Your task to perform on an android device: remove spam from my inbox in the gmail app Image 0: 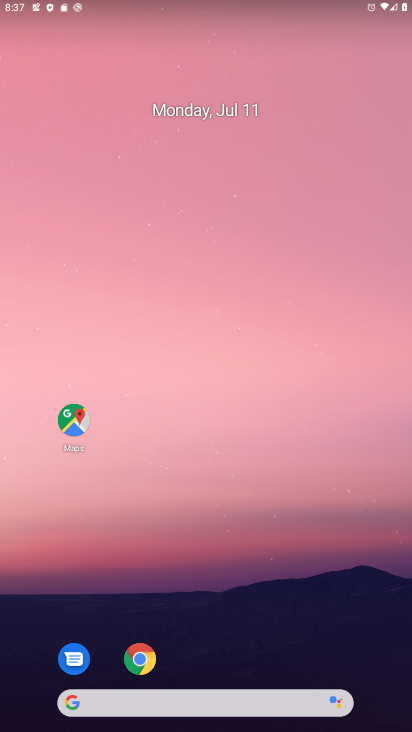
Step 0: drag from (278, 622) to (241, 240)
Your task to perform on an android device: remove spam from my inbox in the gmail app Image 1: 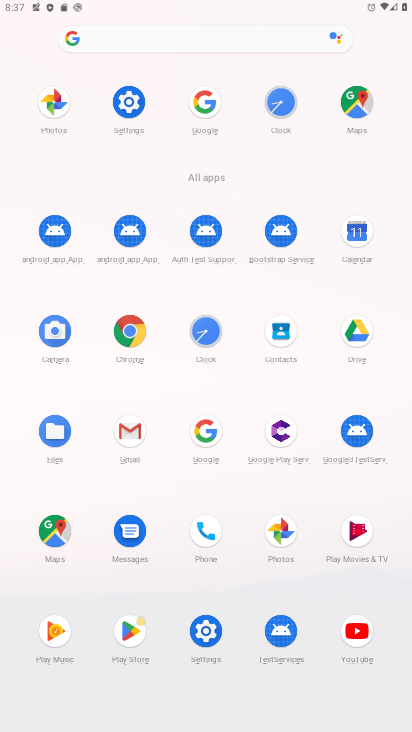
Step 1: click (128, 427)
Your task to perform on an android device: remove spam from my inbox in the gmail app Image 2: 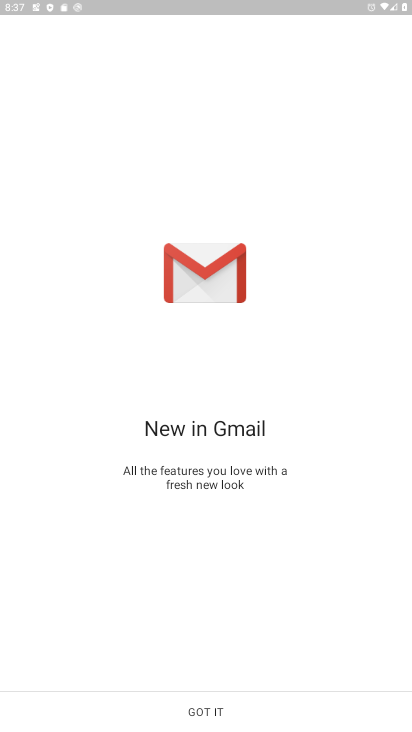
Step 2: click (207, 707)
Your task to perform on an android device: remove spam from my inbox in the gmail app Image 3: 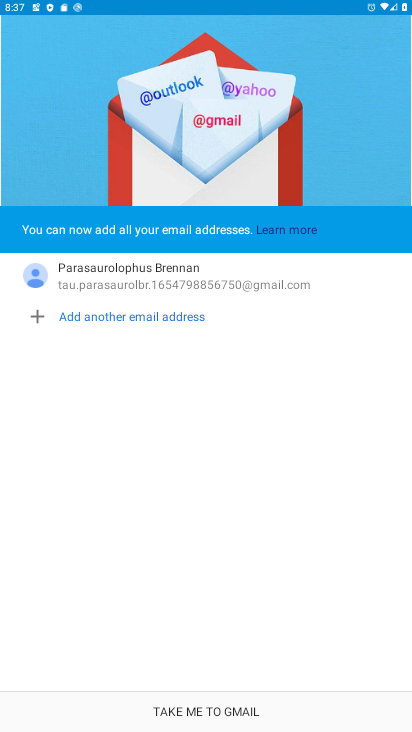
Step 3: click (194, 711)
Your task to perform on an android device: remove spam from my inbox in the gmail app Image 4: 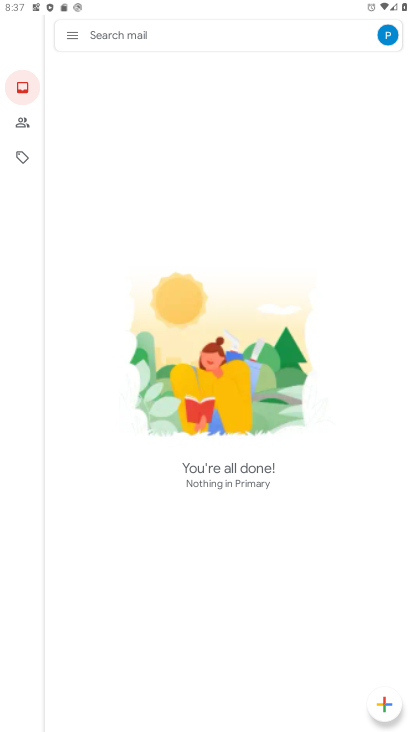
Step 4: click (67, 30)
Your task to perform on an android device: remove spam from my inbox in the gmail app Image 5: 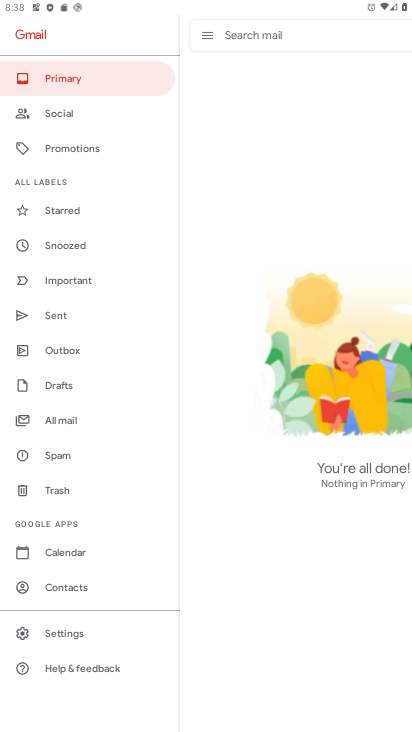
Step 5: click (62, 454)
Your task to perform on an android device: remove spam from my inbox in the gmail app Image 6: 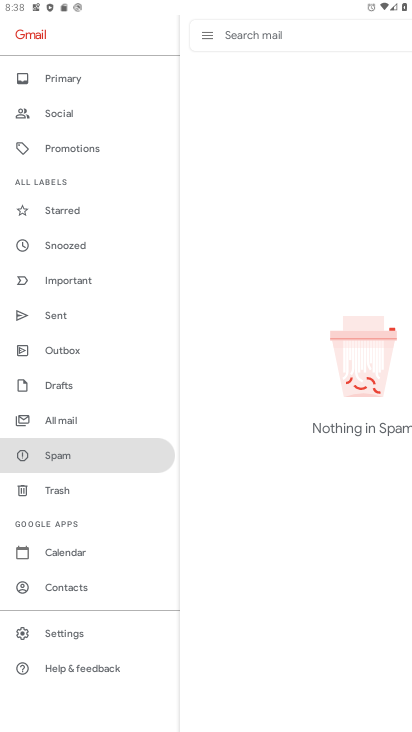
Step 6: task complete